Your task to perform on an android device: delete browsing data in the chrome app Image 0: 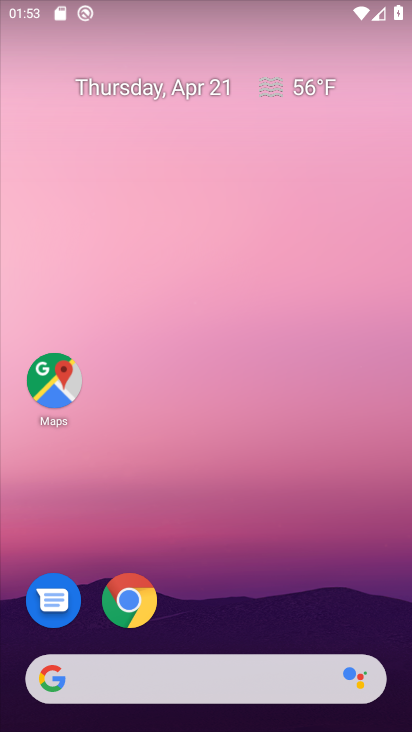
Step 0: click (142, 603)
Your task to perform on an android device: delete browsing data in the chrome app Image 1: 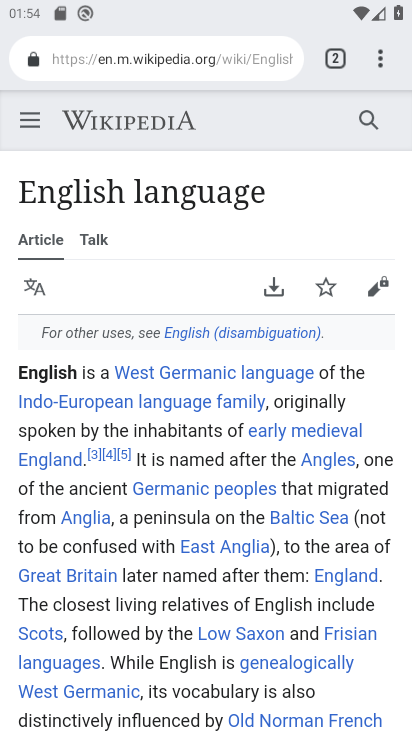
Step 1: click (376, 56)
Your task to perform on an android device: delete browsing data in the chrome app Image 2: 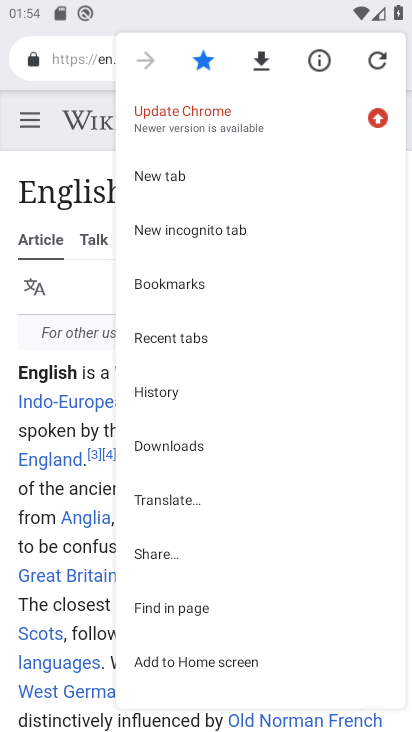
Step 2: click (169, 392)
Your task to perform on an android device: delete browsing data in the chrome app Image 3: 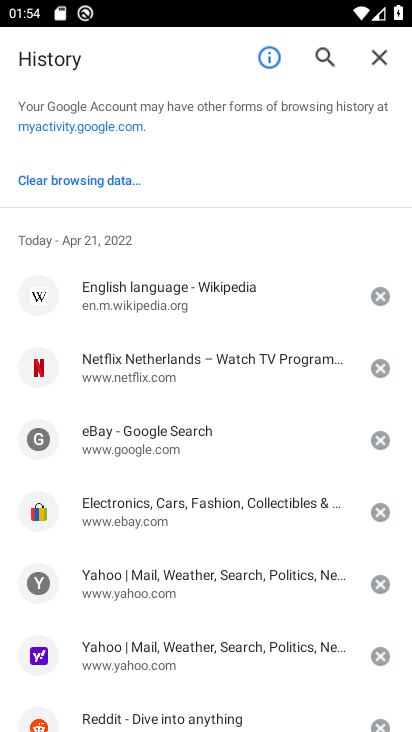
Step 3: click (118, 174)
Your task to perform on an android device: delete browsing data in the chrome app Image 4: 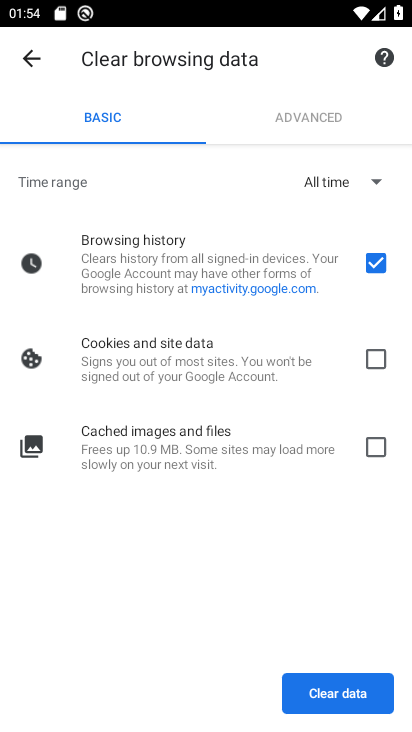
Step 4: click (370, 353)
Your task to perform on an android device: delete browsing data in the chrome app Image 5: 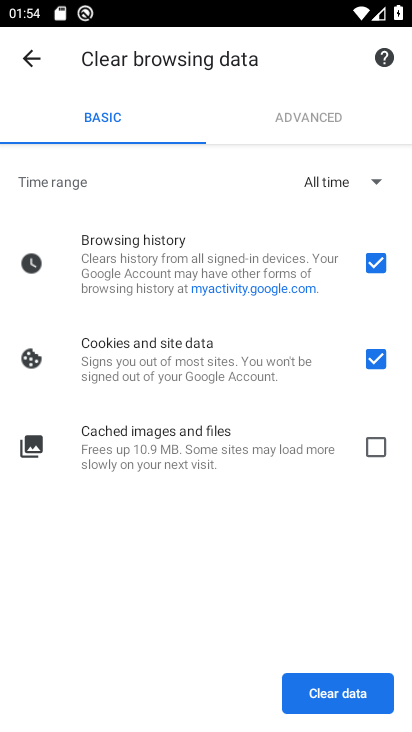
Step 5: click (366, 445)
Your task to perform on an android device: delete browsing data in the chrome app Image 6: 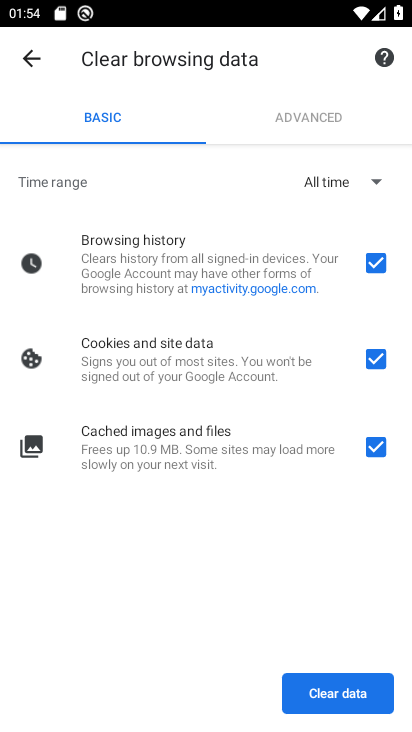
Step 6: click (343, 697)
Your task to perform on an android device: delete browsing data in the chrome app Image 7: 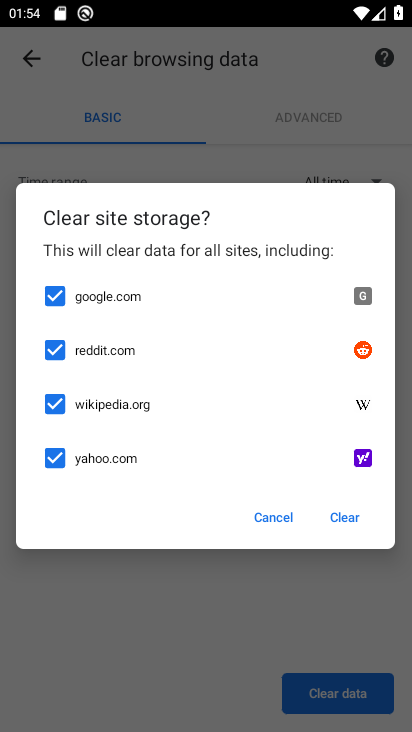
Step 7: click (350, 510)
Your task to perform on an android device: delete browsing data in the chrome app Image 8: 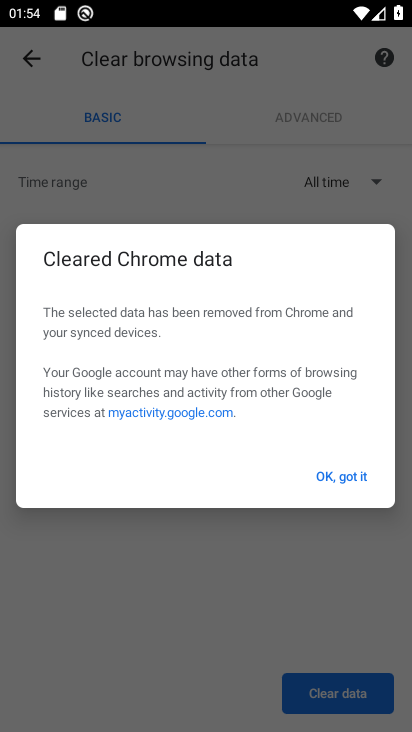
Step 8: click (358, 469)
Your task to perform on an android device: delete browsing data in the chrome app Image 9: 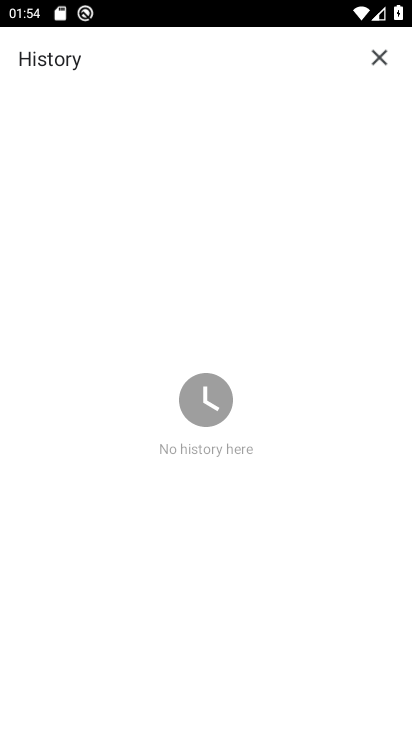
Step 9: task complete